Your task to perform on an android device: set default search engine in the chrome app Image 0: 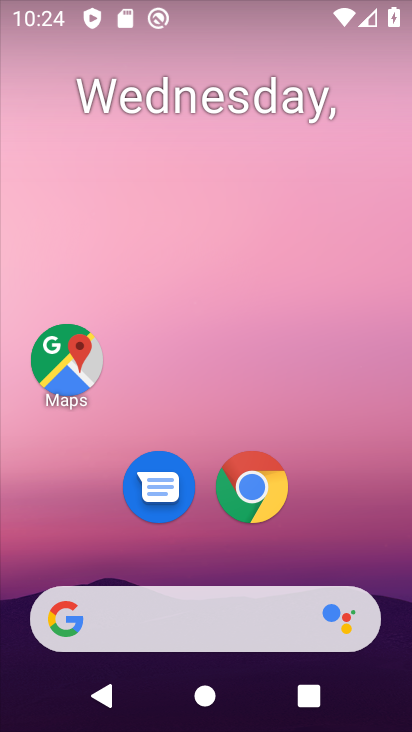
Step 0: drag from (332, 584) to (339, 69)
Your task to perform on an android device: set default search engine in the chrome app Image 1: 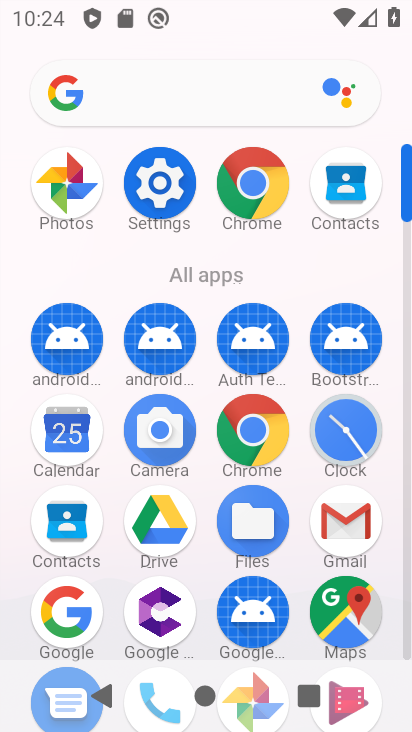
Step 1: click (258, 431)
Your task to perform on an android device: set default search engine in the chrome app Image 2: 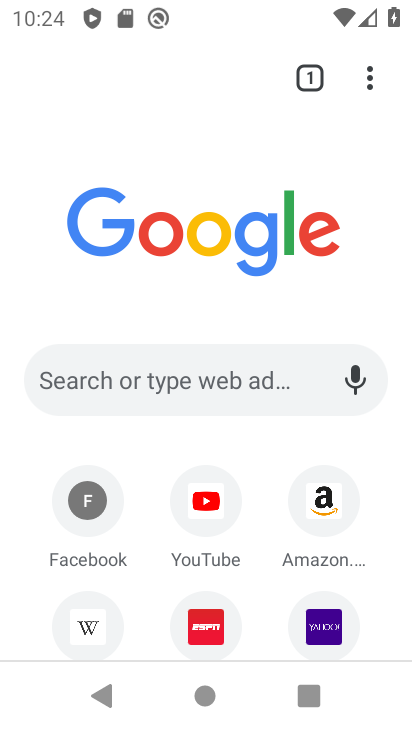
Step 2: drag from (366, 71) to (139, 550)
Your task to perform on an android device: set default search engine in the chrome app Image 3: 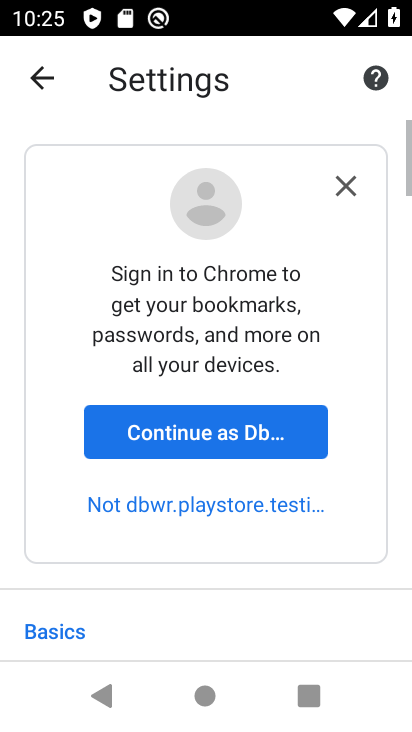
Step 3: drag from (82, 644) to (170, 187)
Your task to perform on an android device: set default search engine in the chrome app Image 4: 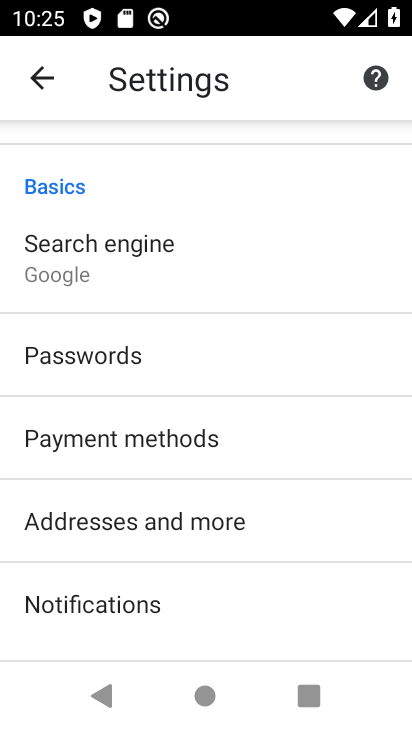
Step 4: drag from (248, 550) to (316, 187)
Your task to perform on an android device: set default search engine in the chrome app Image 5: 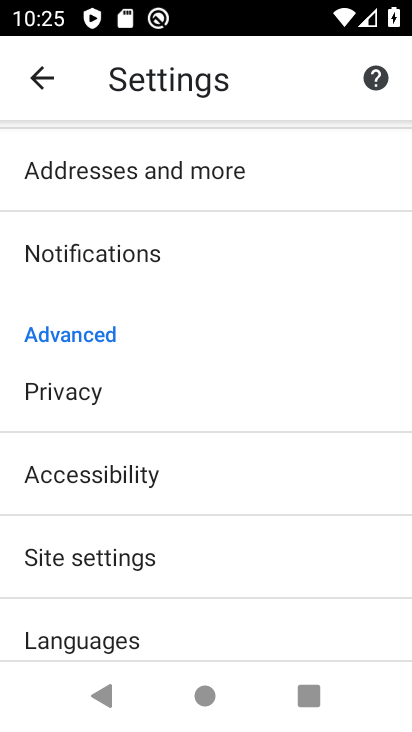
Step 5: drag from (283, 213) to (216, 700)
Your task to perform on an android device: set default search engine in the chrome app Image 6: 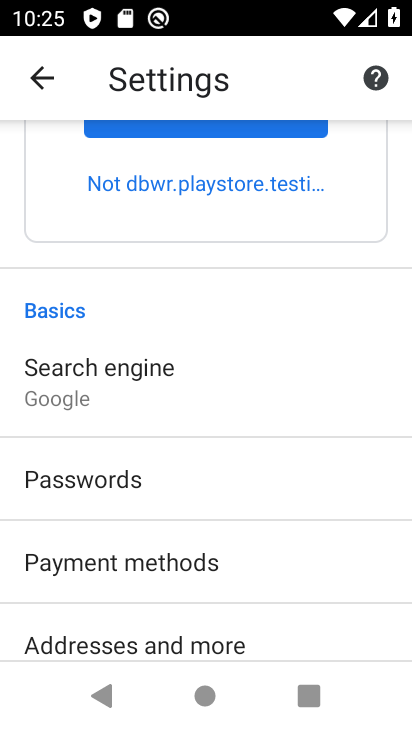
Step 6: click (183, 409)
Your task to perform on an android device: set default search engine in the chrome app Image 7: 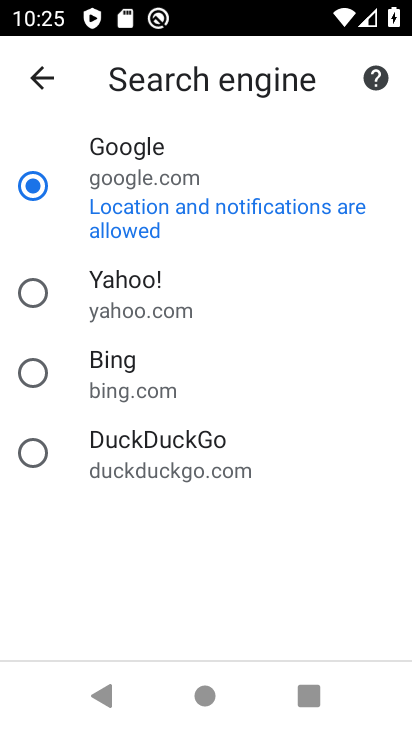
Step 7: task complete